Your task to perform on an android device: Open location settings Image 0: 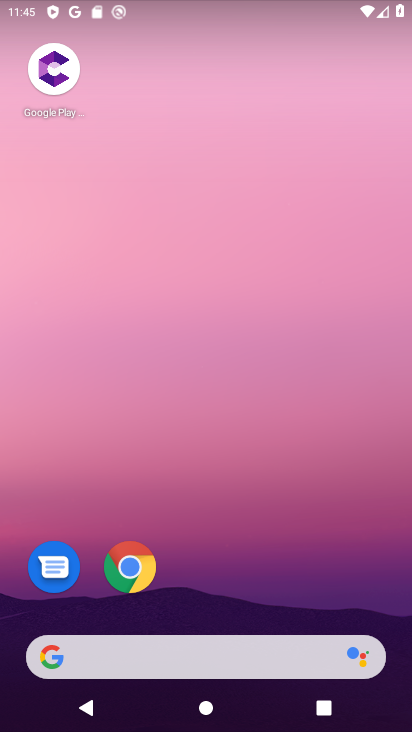
Step 0: drag from (245, 597) to (220, 5)
Your task to perform on an android device: Open location settings Image 1: 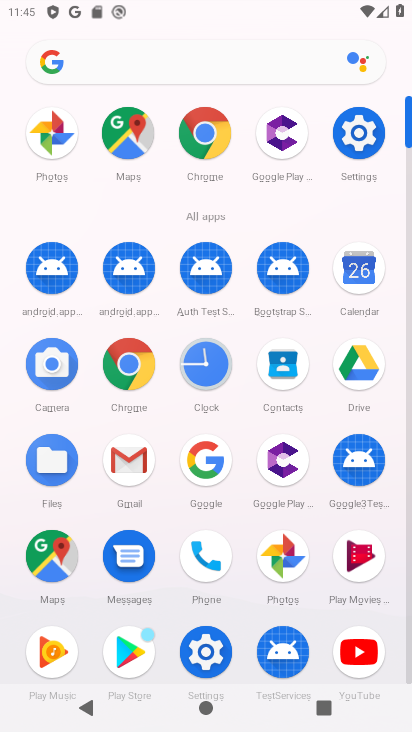
Step 1: click (196, 652)
Your task to perform on an android device: Open location settings Image 2: 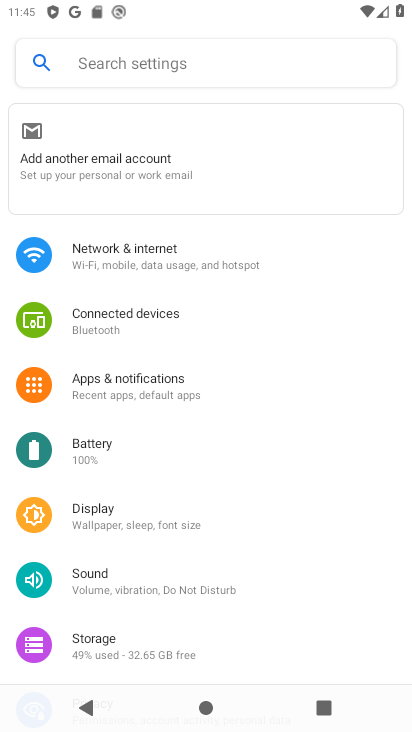
Step 2: drag from (161, 597) to (163, 217)
Your task to perform on an android device: Open location settings Image 3: 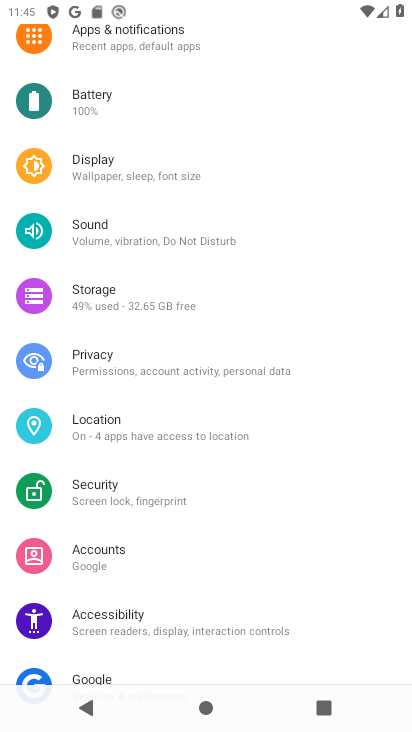
Step 3: click (174, 419)
Your task to perform on an android device: Open location settings Image 4: 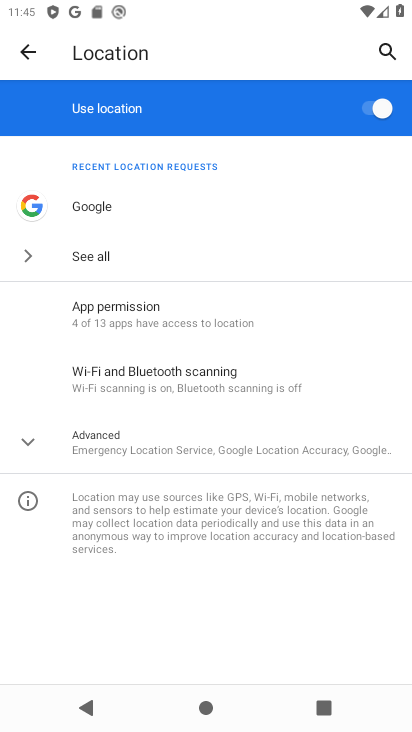
Step 4: task complete